Your task to perform on an android device: turn vacation reply on in the gmail app Image 0: 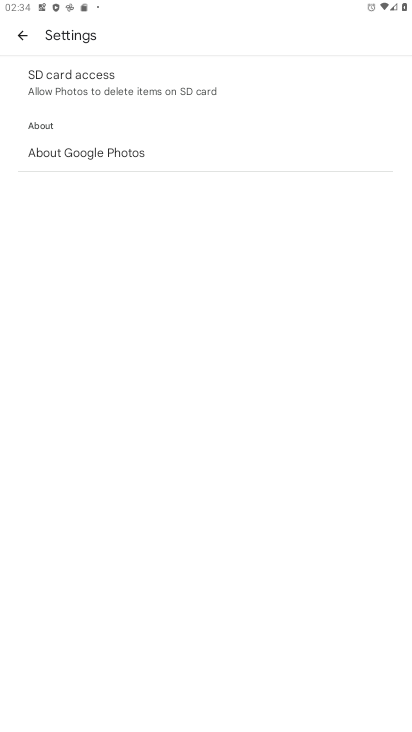
Step 0: press home button
Your task to perform on an android device: turn vacation reply on in the gmail app Image 1: 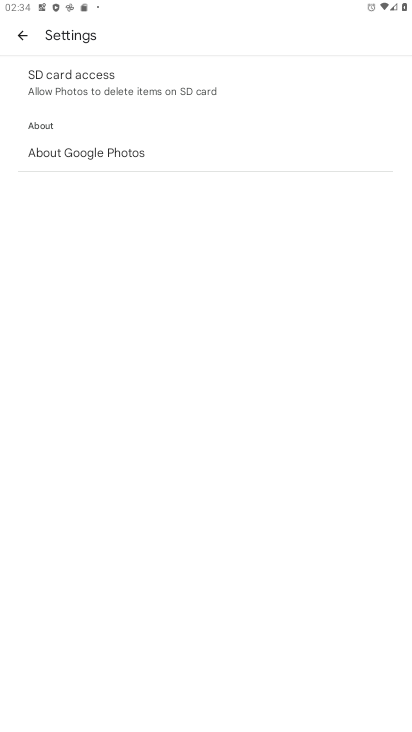
Step 1: press home button
Your task to perform on an android device: turn vacation reply on in the gmail app Image 2: 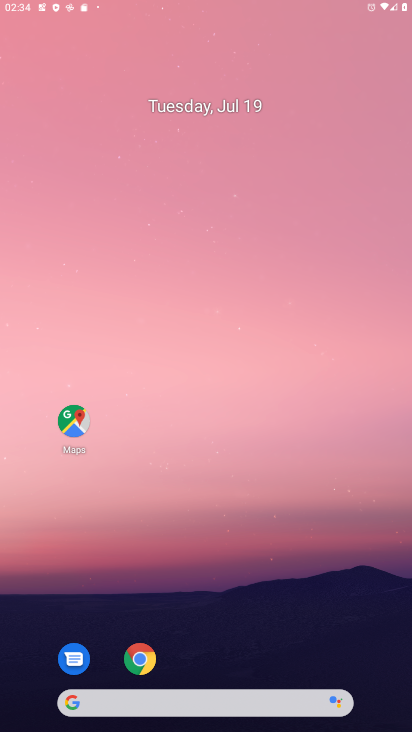
Step 2: press home button
Your task to perform on an android device: turn vacation reply on in the gmail app Image 3: 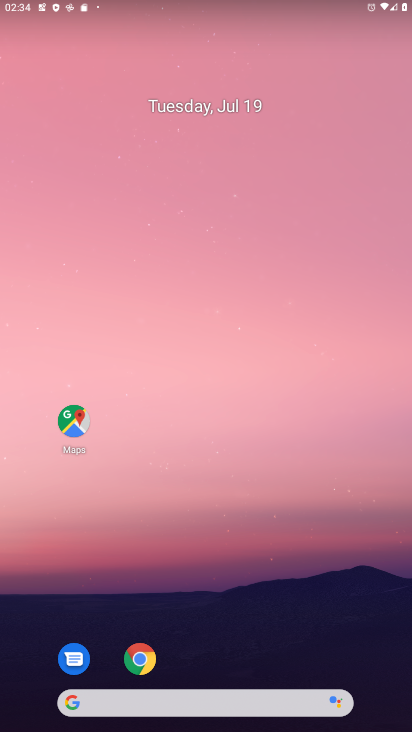
Step 3: drag from (244, 691) to (251, 103)
Your task to perform on an android device: turn vacation reply on in the gmail app Image 4: 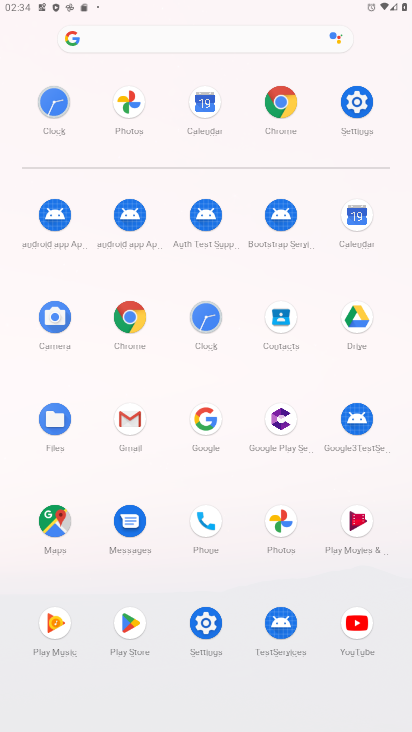
Step 4: click (133, 414)
Your task to perform on an android device: turn vacation reply on in the gmail app Image 5: 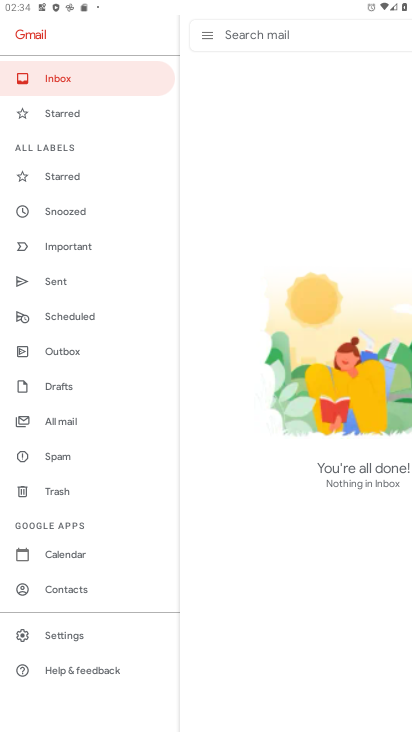
Step 5: click (87, 645)
Your task to perform on an android device: turn vacation reply on in the gmail app Image 6: 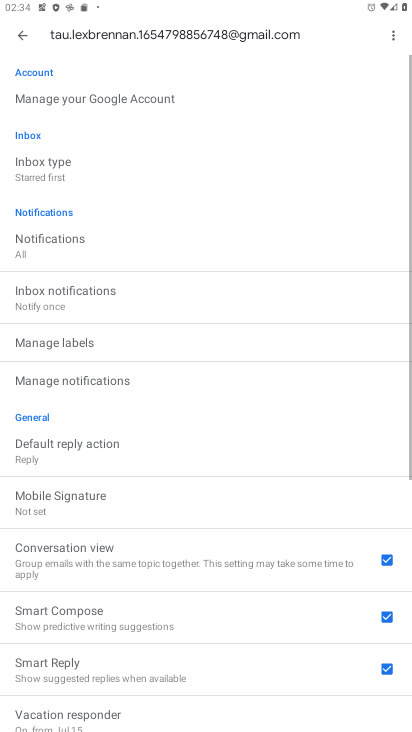
Step 6: drag from (95, 643) to (99, 368)
Your task to perform on an android device: turn vacation reply on in the gmail app Image 7: 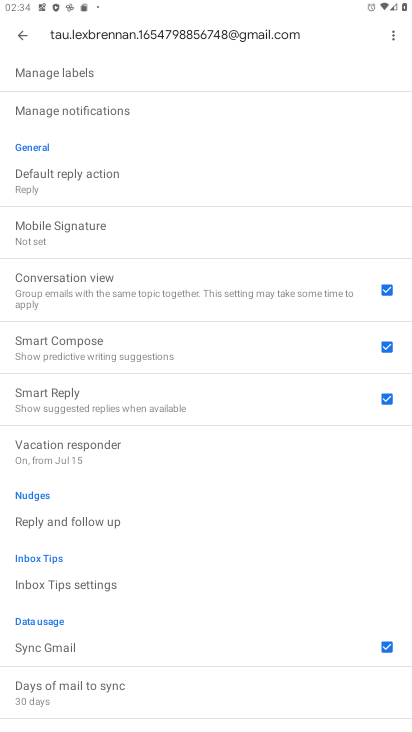
Step 7: click (66, 460)
Your task to perform on an android device: turn vacation reply on in the gmail app Image 8: 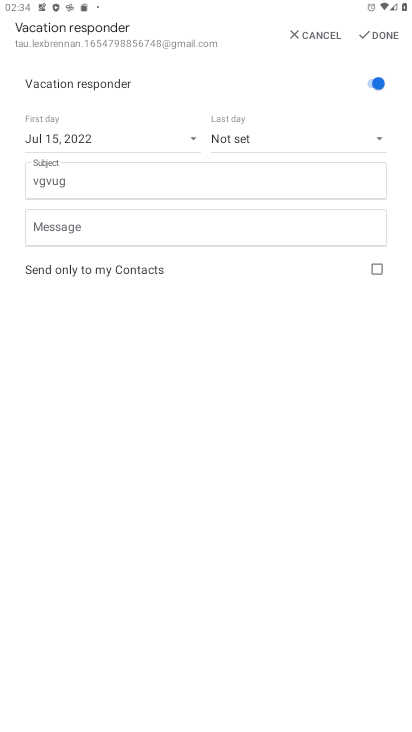
Step 8: click (90, 131)
Your task to perform on an android device: turn vacation reply on in the gmail app Image 9: 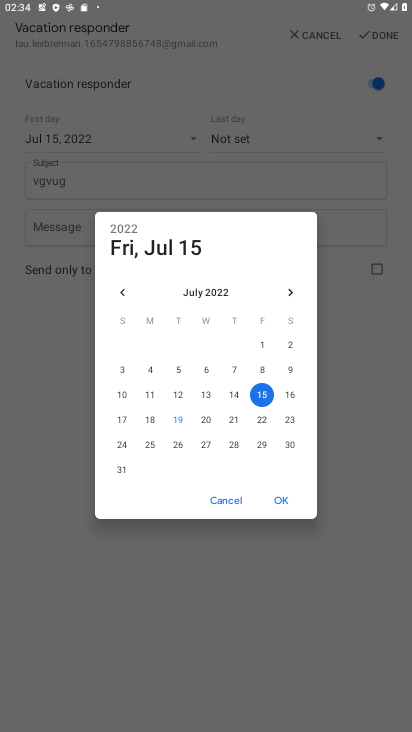
Step 9: click (185, 424)
Your task to perform on an android device: turn vacation reply on in the gmail app Image 10: 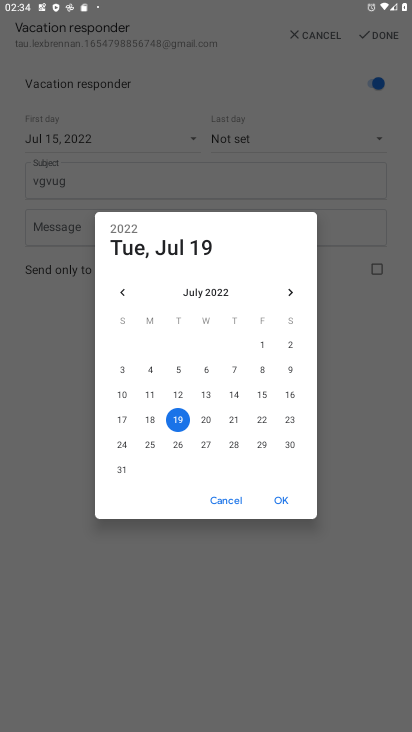
Step 10: click (294, 498)
Your task to perform on an android device: turn vacation reply on in the gmail app Image 11: 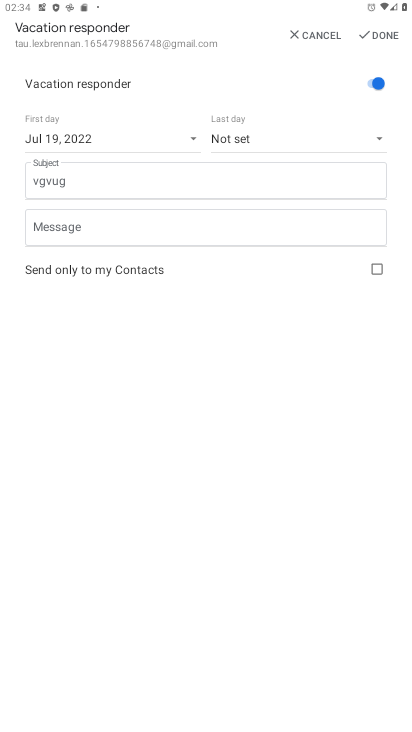
Step 11: click (98, 229)
Your task to perform on an android device: turn vacation reply on in the gmail app Image 12: 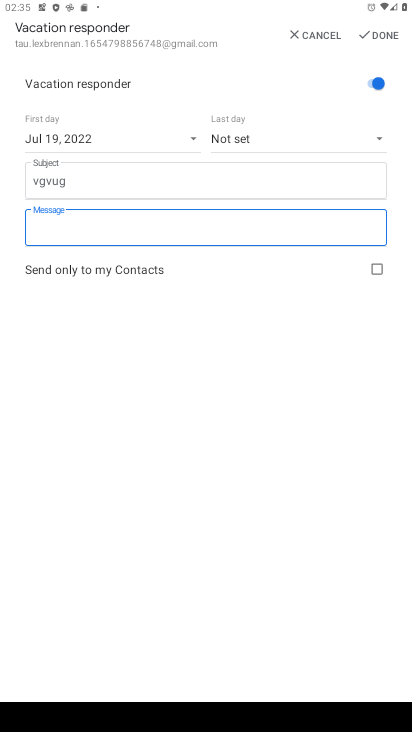
Step 12: type "nnnnnnnnnbbbbbbbbgggggggggggguguuuuuuuyyyyyy"
Your task to perform on an android device: turn vacation reply on in the gmail app Image 13: 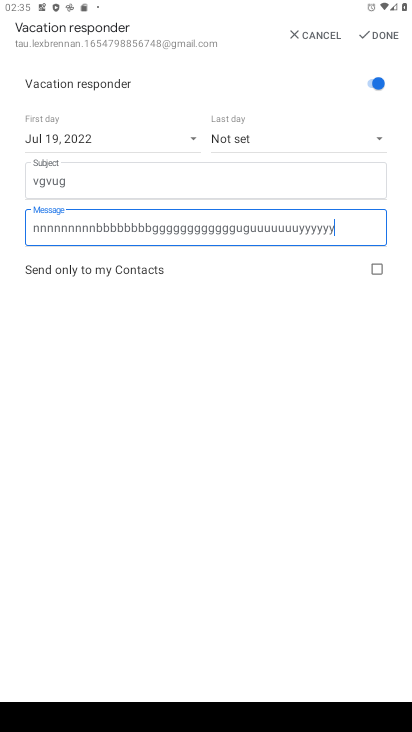
Step 13: click (259, 134)
Your task to perform on an android device: turn vacation reply on in the gmail app Image 14: 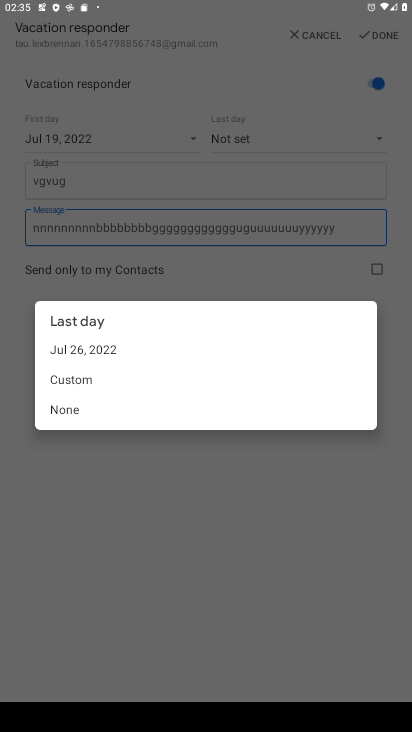
Step 14: click (74, 355)
Your task to perform on an android device: turn vacation reply on in the gmail app Image 15: 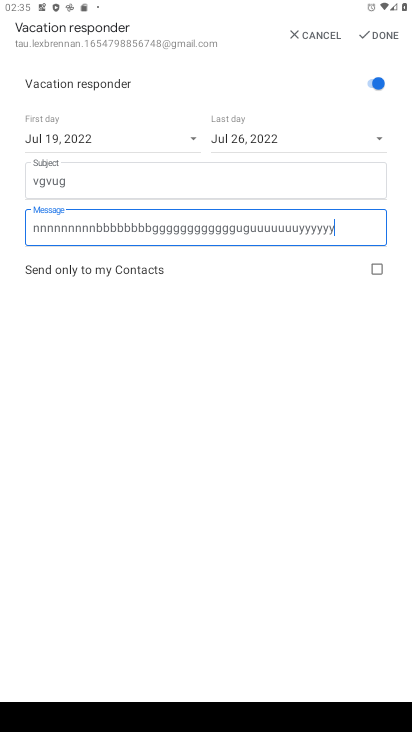
Step 15: click (366, 41)
Your task to perform on an android device: turn vacation reply on in the gmail app Image 16: 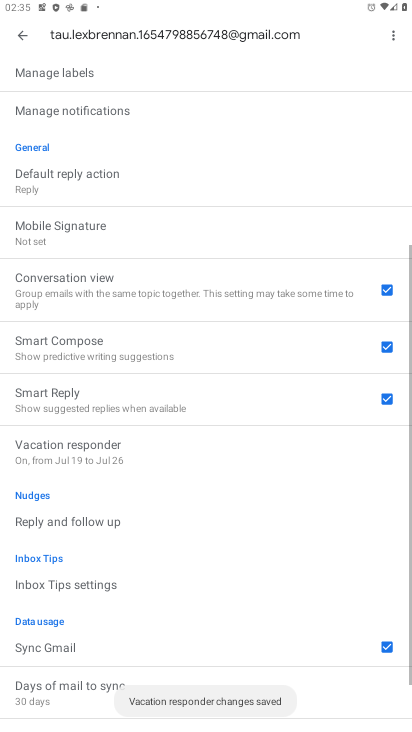
Step 16: task complete